Your task to perform on an android device: Go to settings Image 0: 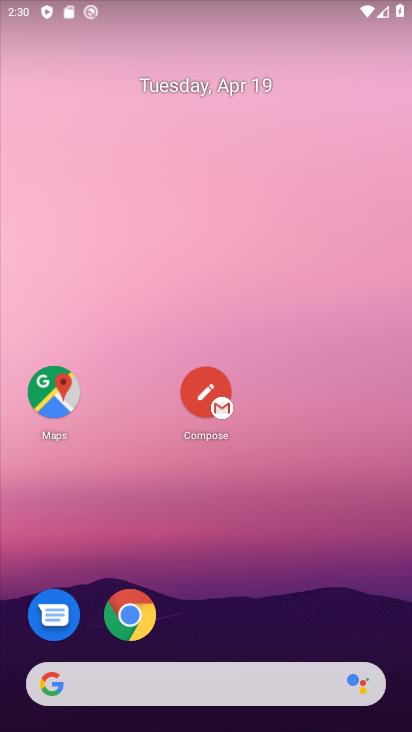
Step 0: drag from (182, 613) to (210, 3)
Your task to perform on an android device: Go to settings Image 1: 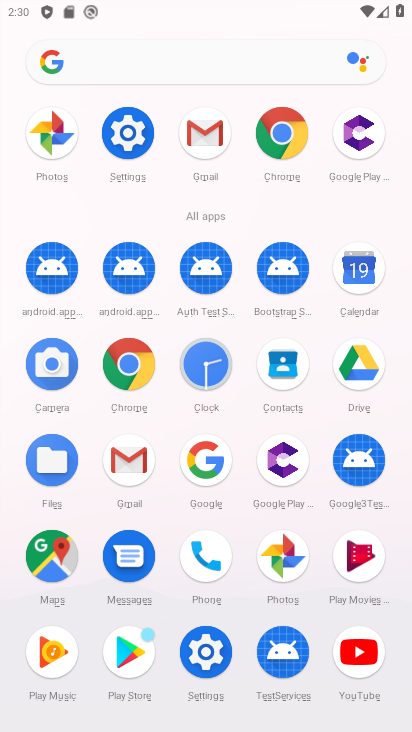
Step 1: click (203, 661)
Your task to perform on an android device: Go to settings Image 2: 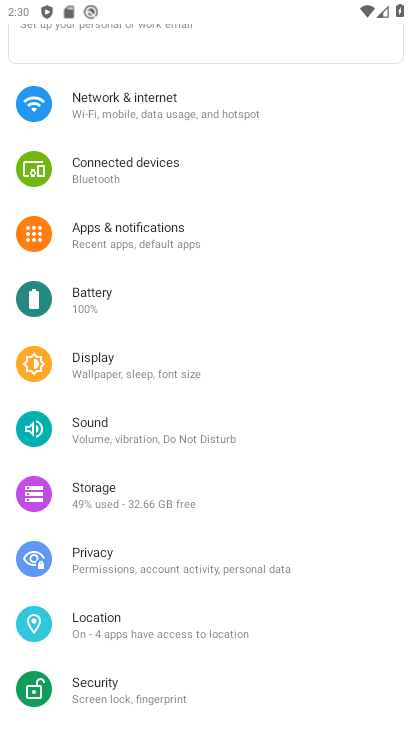
Step 2: task complete